Your task to perform on an android device: change the clock display to show seconds Image 0: 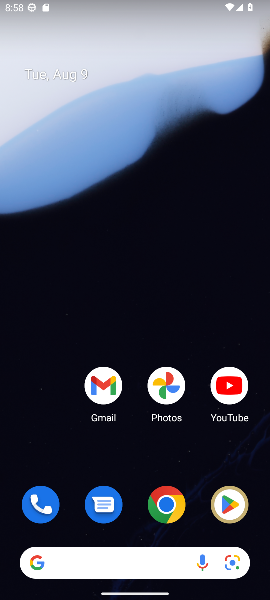
Step 0: drag from (140, 460) to (132, 71)
Your task to perform on an android device: change the clock display to show seconds Image 1: 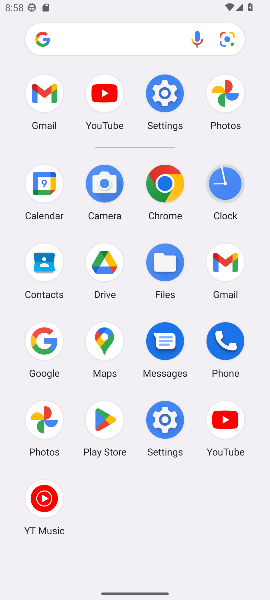
Step 1: click (223, 178)
Your task to perform on an android device: change the clock display to show seconds Image 2: 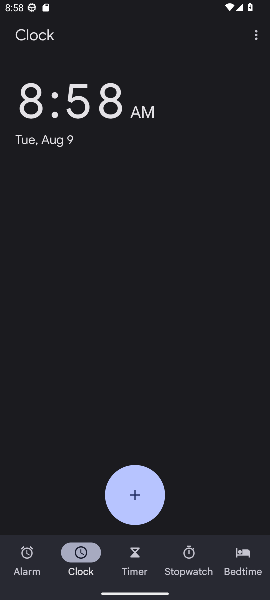
Step 2: click (255, 33)
Your task to perform on an android device: change the clock display to show seconds Image 3: 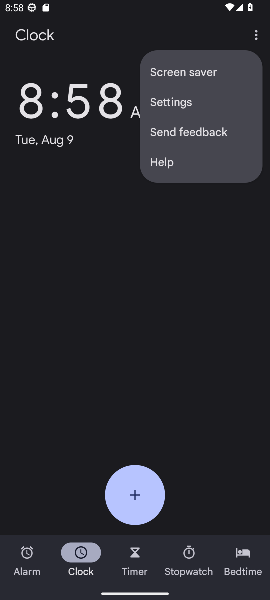
Step 3: click (174, 110)
Your task to perform on an android device: change the clock display to show seconds Image 4: 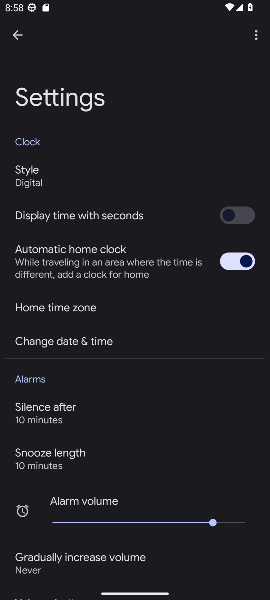
Step 4: click (237, 219)
Your task to perform on an android device: change the clock display to show seconds Image 5: 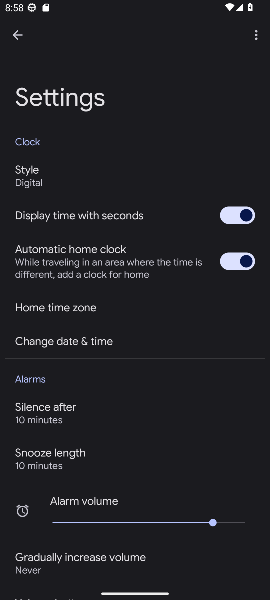
Step 5: task complete